Your task to perform on an android device: What's the weather? Image 0: 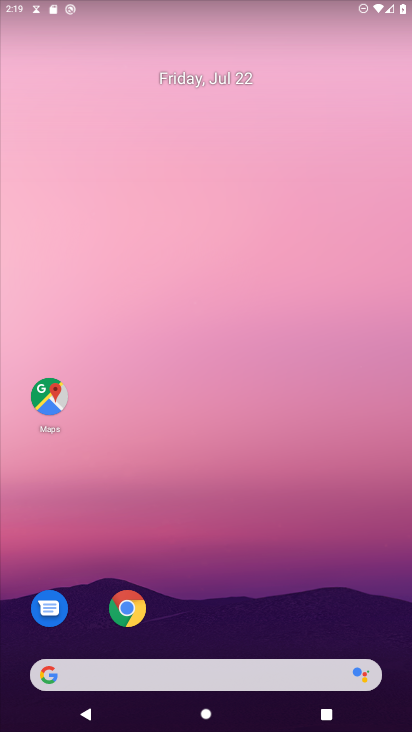
Step 0: click (177, 677)
Your task to perform on an android device: What's the weather? Image 1: 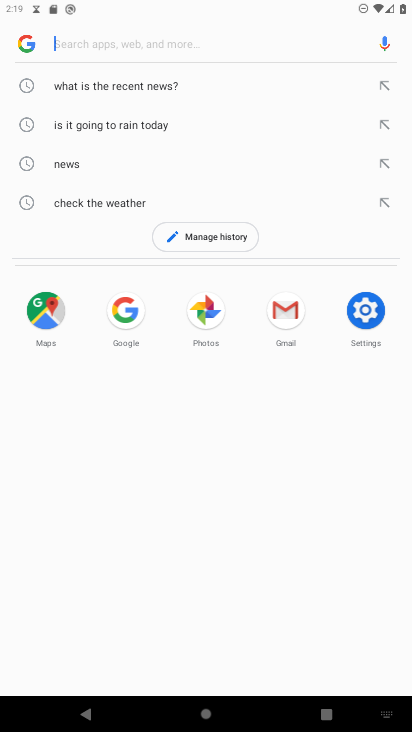
Step 1: type "what's the weather"
Your task to perform on an android device: What's the weather? Image 2: 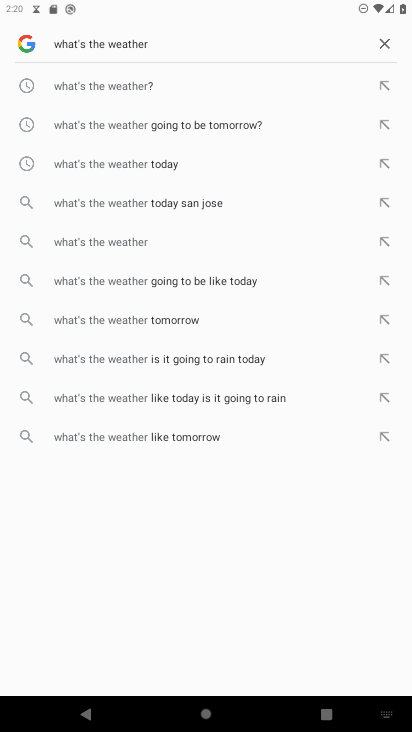
Step 2: click (84, 89)
Your task to perform on an android device: What's the weather? Image 3: 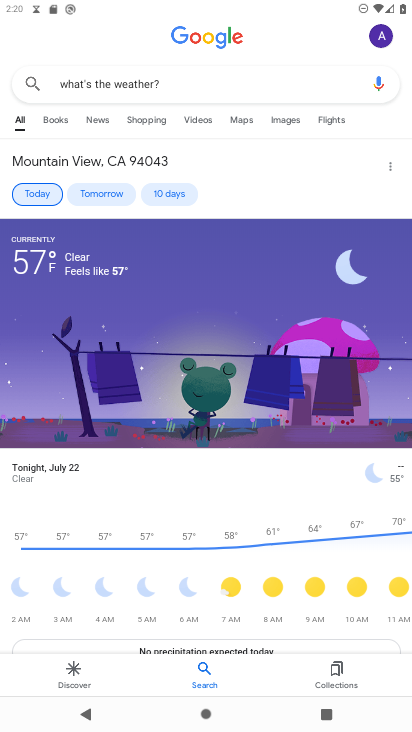
Step 3: task complete